Your task to perform on an android device: Go to ESPN.com Image 0: 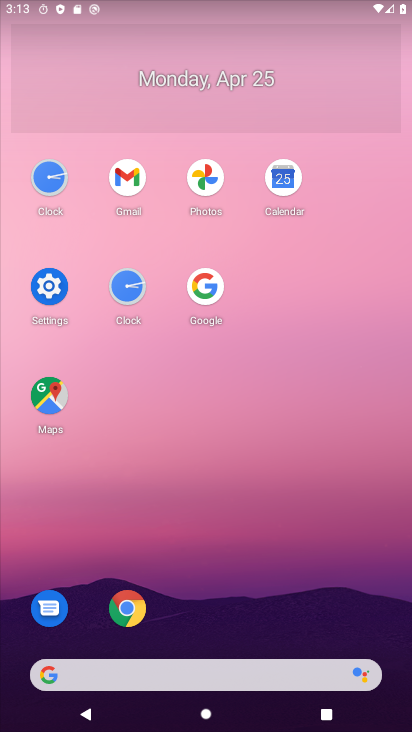
Step 0: click (121, 612)
Your task to perform on an android device: Go to ESPN.com Image 1: 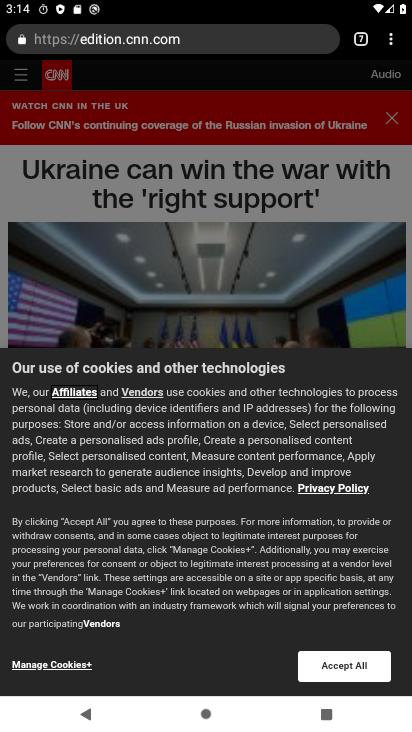
Step 1: click (360, 36)
Your task to perform on an android device: Go to ESPN.com Image 2: 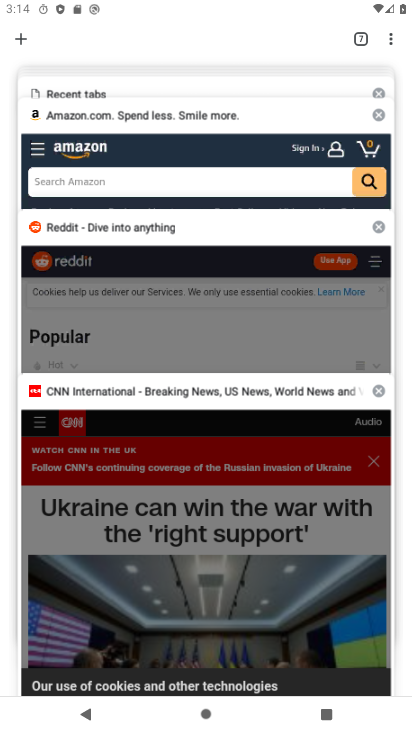
Step 2: click (20, 39)
Your task to perform on an android device: Go to ESPN.com Image 3: 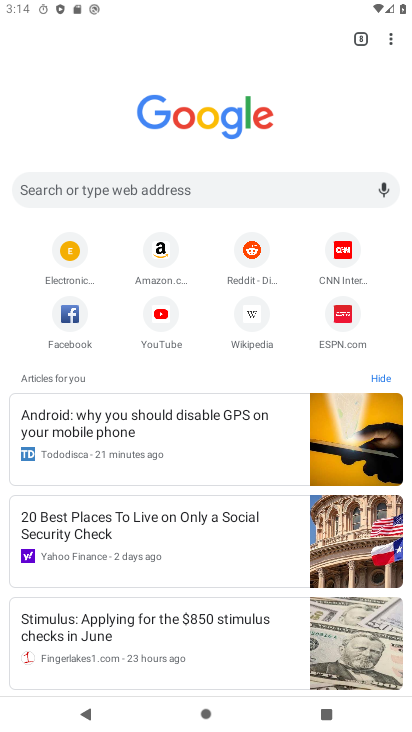
Step 3: click (342, 317)
Your task to perform on an android device: Go to ESPN.com Image 4: 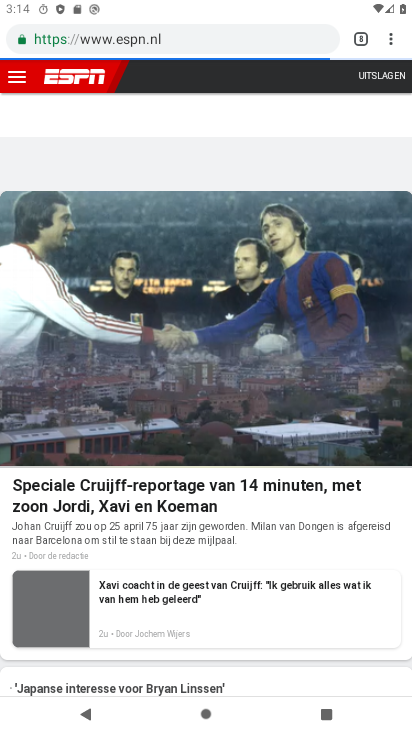
Step 4: task complete